Your task to perform on an android device: empty trash in google photos Image 0: 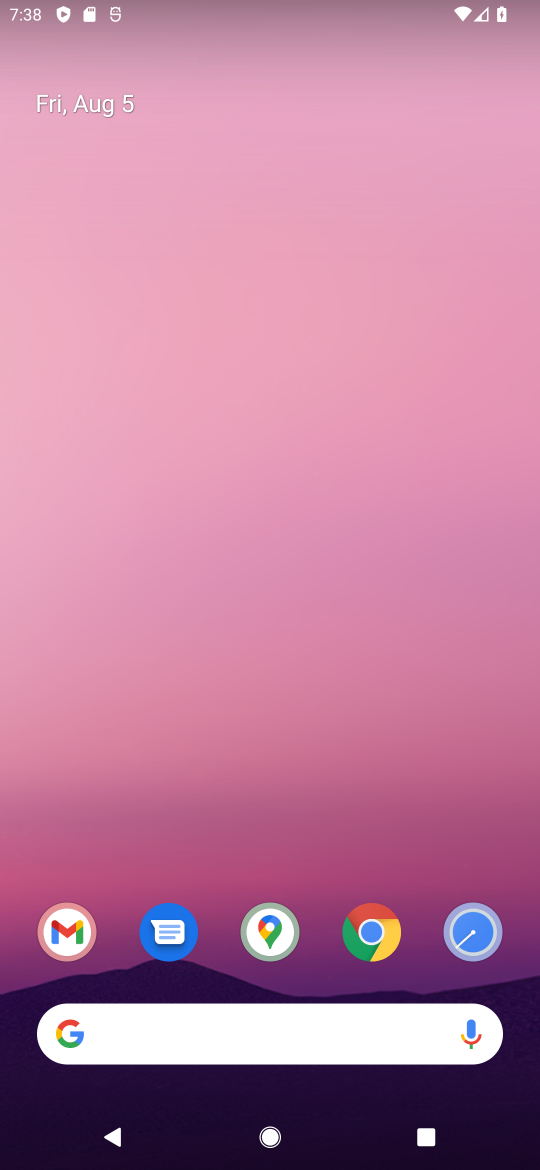
Step 0: drag from (387, 844) to (448, 189)
Your task to perform on an android device: empty trash in google photos Image 1: 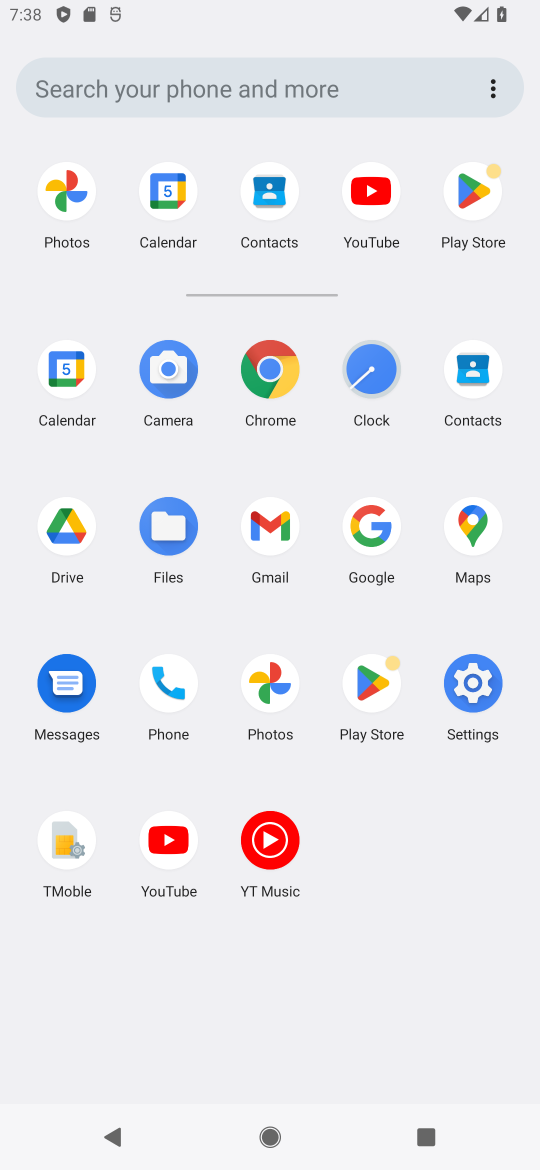
Step 1: click (269, 682)
Your task to perform on an android device: empty trash in google photos Image 2: 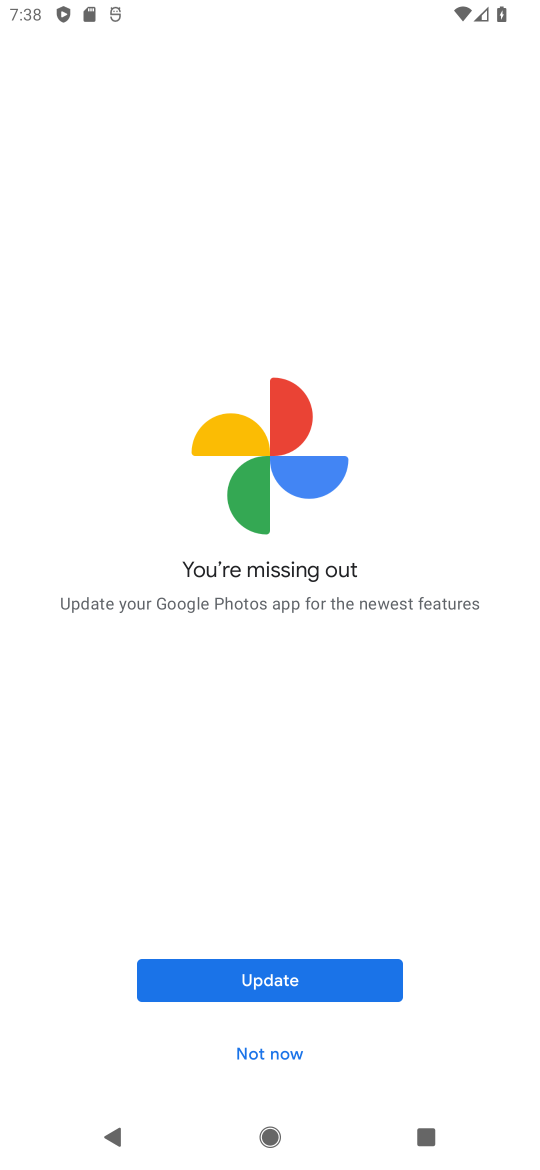
Step 2: click (285, 1052)
Your task to perform on an android device: empty trash in google photos Image 3: 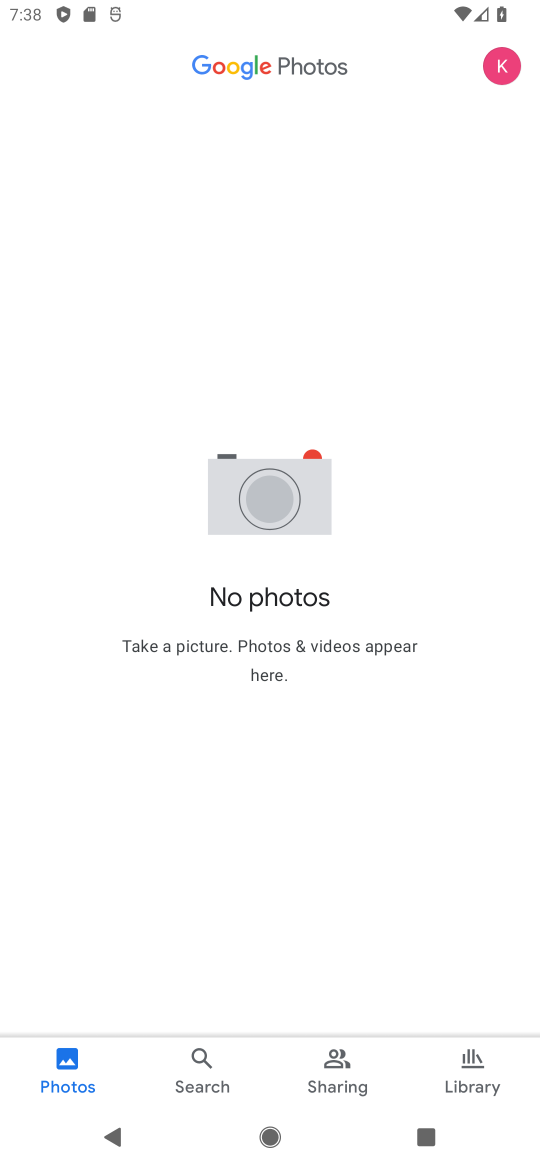
Step 3: click (472, 1041)
Your task to perform on an android device: empty trash in google photos Image 4: 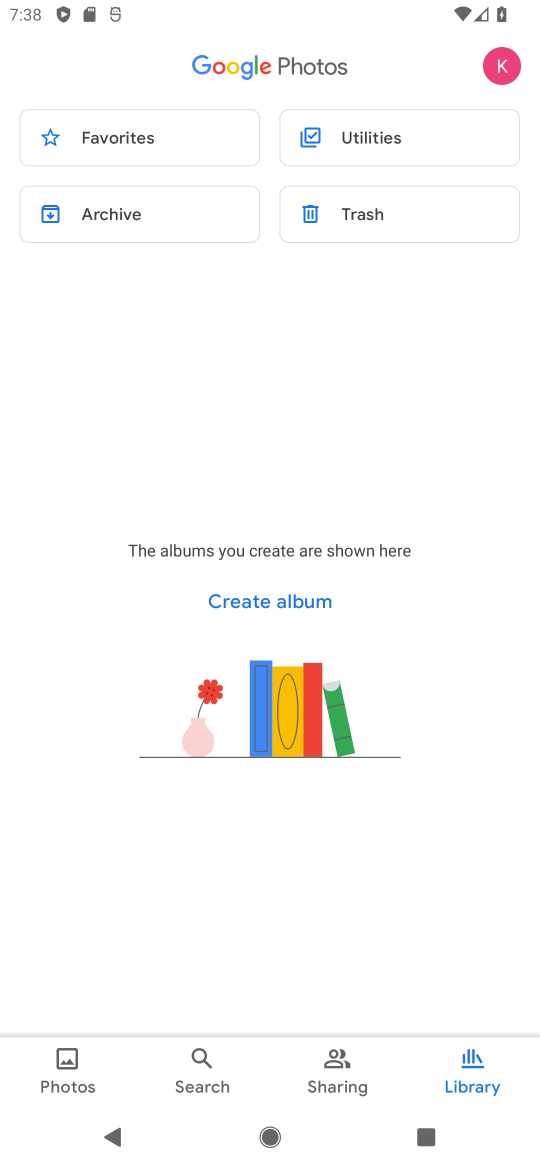
Step 4: click (385, 203)
Your task to perform on an android device: empty trash in google photos Image 5: 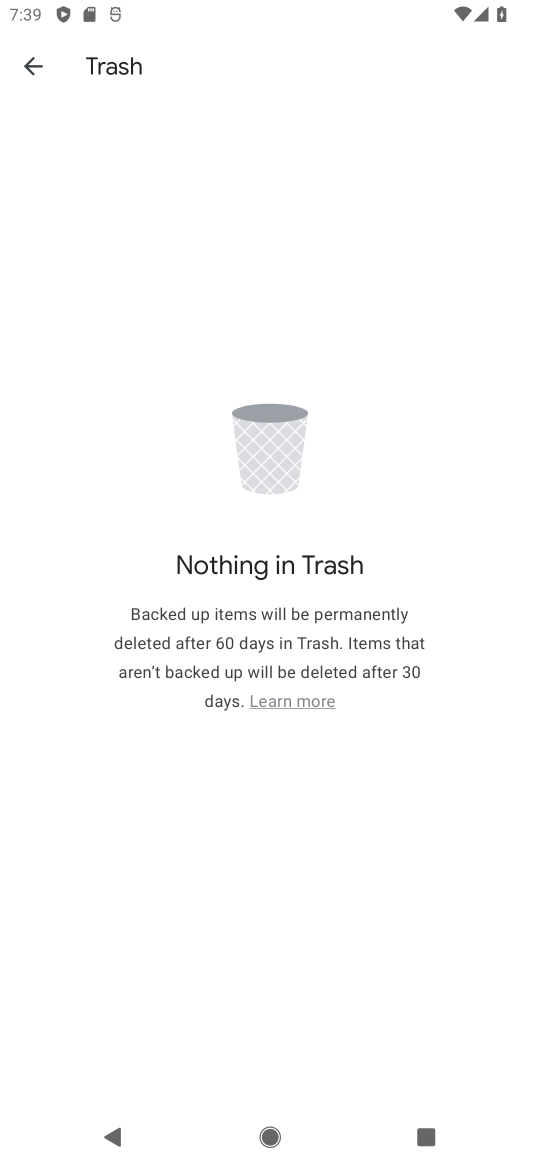
Step 5: task complete